Your task to perform on an android device: change the upload size in google photos Image 0: 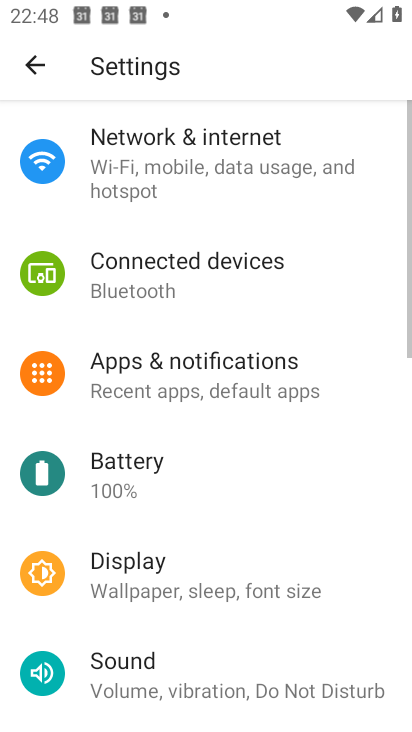
Step 0: press home button
Your task to perform on an android device: change the upload size in google photos Image 1: 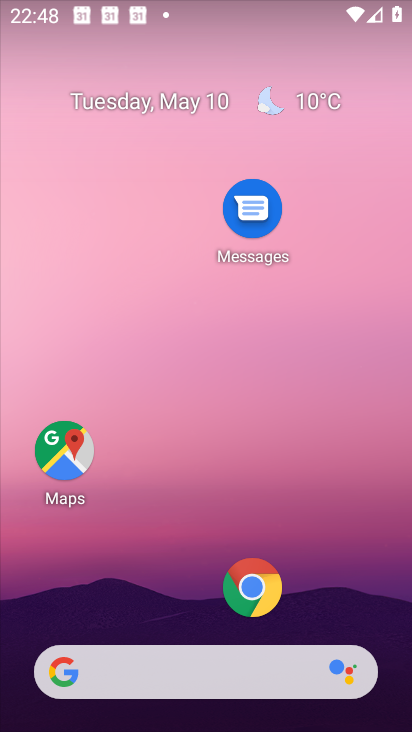
Step 1: drag from (183, 593) to (194, 27)
Your task to perform on an android device: change the upload size in google photos Image 2: 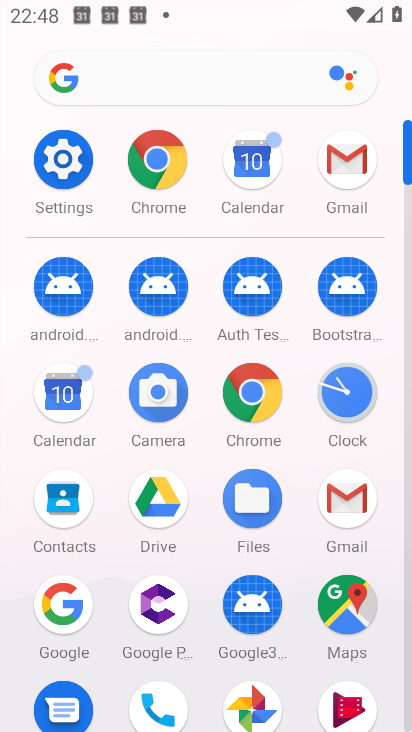
Step 2: click (229, 696)
Your task to perform on an android device: change the upload size in google photos Image 3: 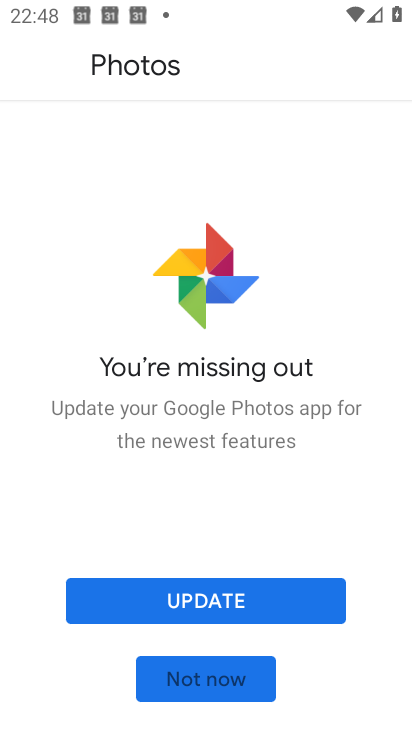
Step 3: click (202, 605)
Your task to perform on an android device: change the upload size in google photos Image 4: 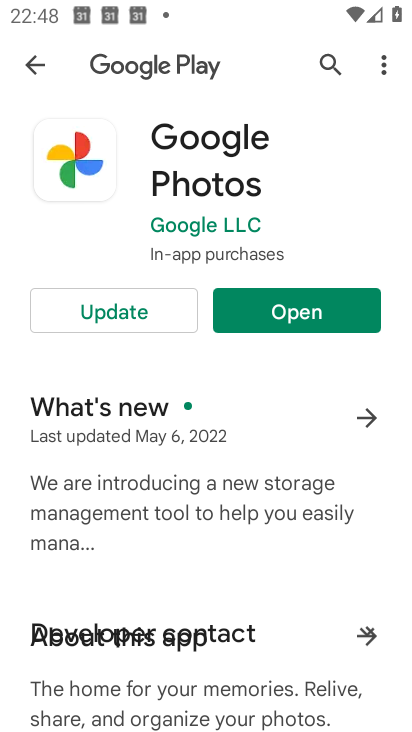
Step 4: click (160, 312)
Your task to perform on an android device: change the upload size in google photos Image 5: 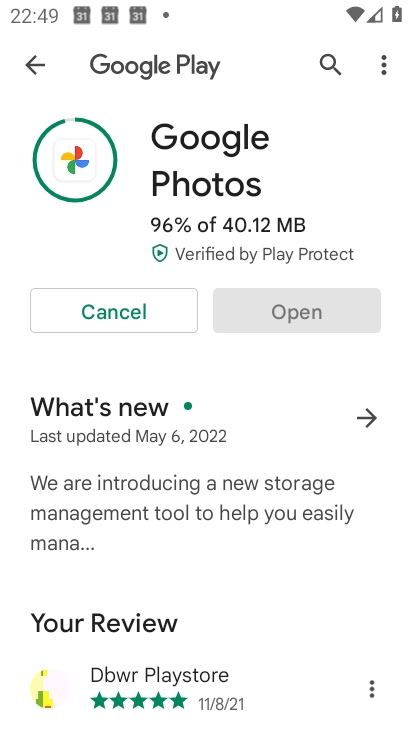
Step 5: click (277, 321)
Your task to perform on an android device: change the upload size in google photos Image 6: 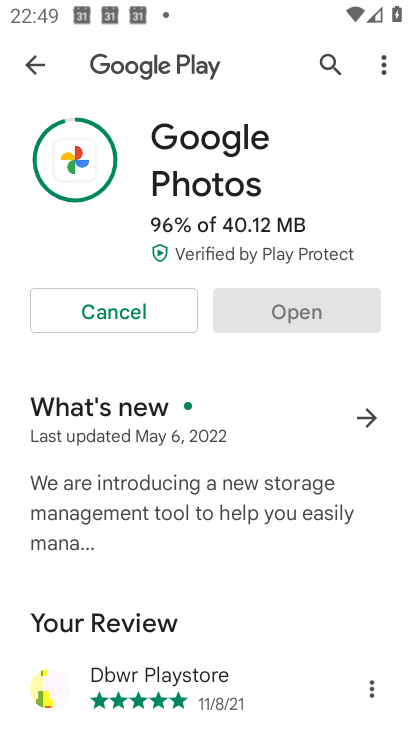
Step 6: drag from (193, 472) to (183, 274)
Your task to perform on an android device: change the upload size in google photos Image 7: 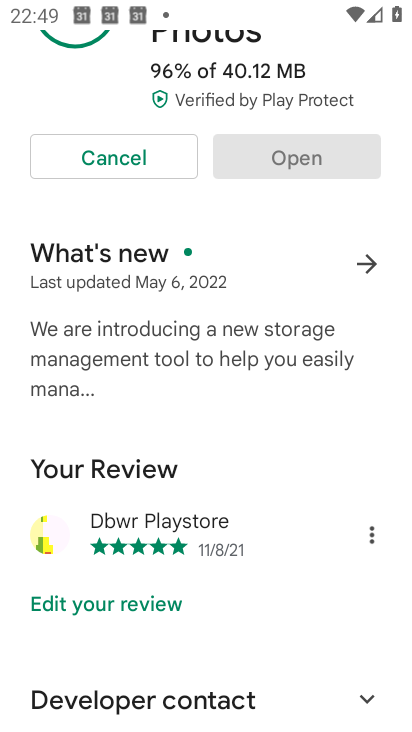
Step 7: drag from (104, 551) to (132, 342)
Your task to perform on an android device: change the upload size in google photos Image 8: 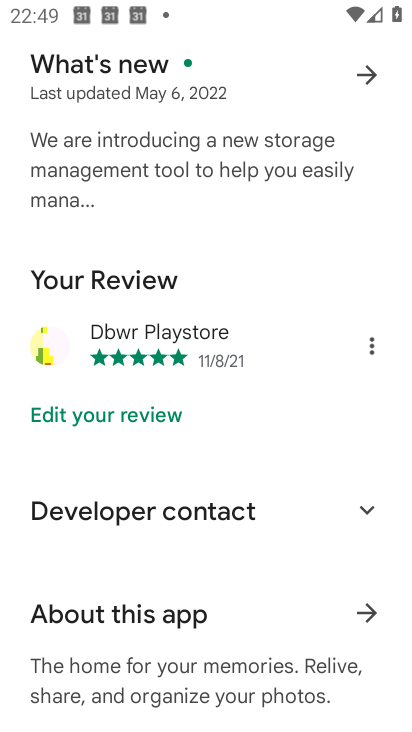
Step 8: drag from (209, 261) to (192, 672)
Your task to perform on an android device: change the upload size in google photos Image 9: 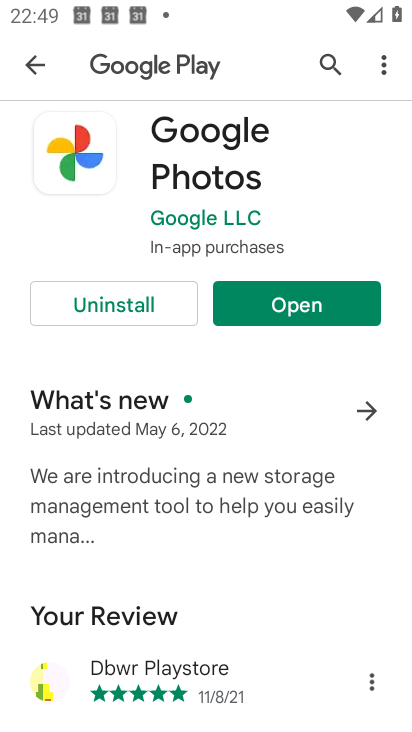
Step 9: click (282, 307)
Your task to perform on an android device: change the upload size in google photos Image 10: 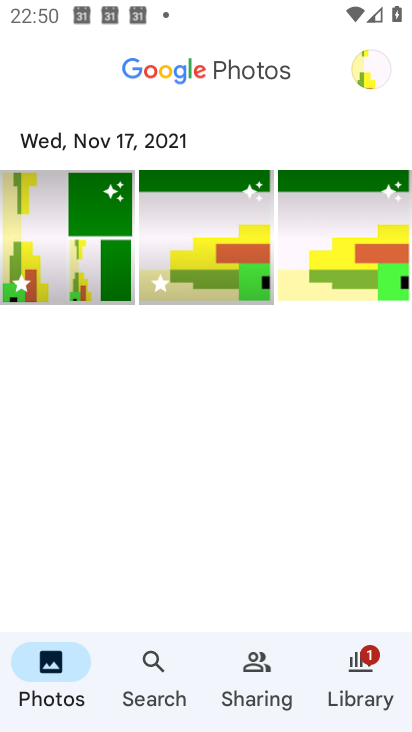
Step 10: click (363, 78)
Your task to perform on an android device: change the upload size in google photos Image 11: 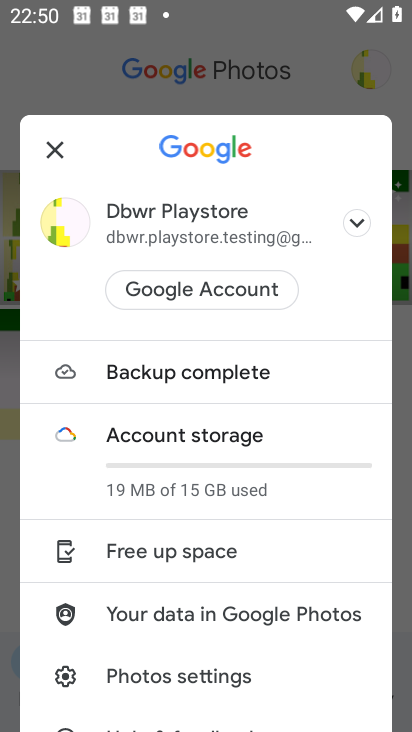
Step 11: drag from (168, 625) to (192, 469)
Your task to perform on an android device: change the upload size in google photos Image 12: 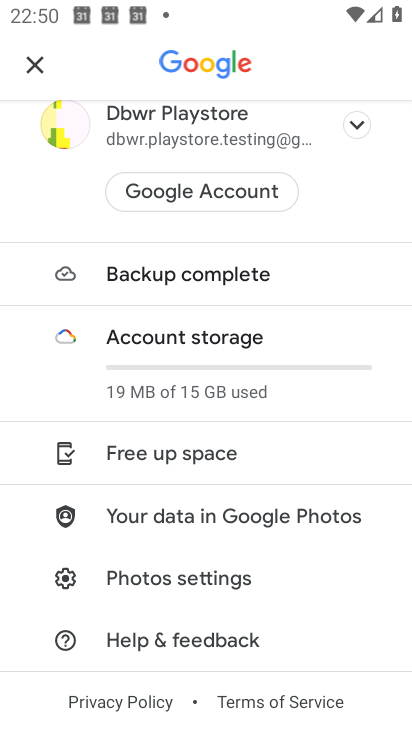
Step 12: click (162, 581)
Your task to perform on an android device: change the upload size in google photos Image 13: 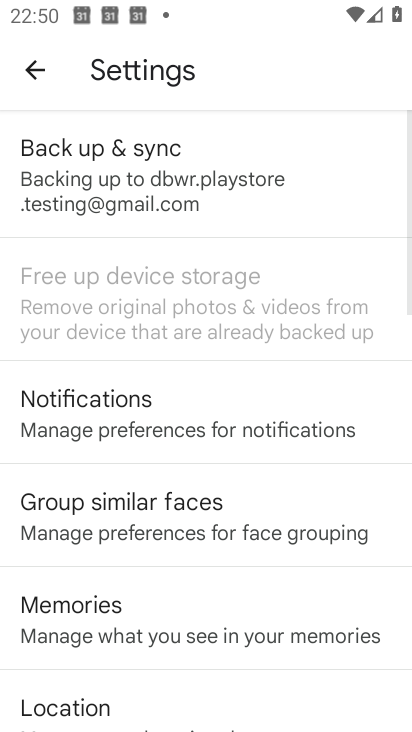
Step 13: click (145, 181)
Your task to perform on an android device: change the upload size in google photos Image 14: 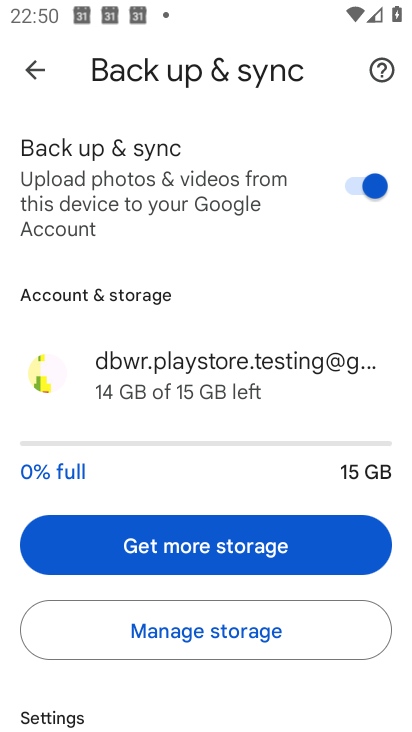
Step 14: drag from (175, 471) to (194, 231)
Your task to perform on an android device: change the upload size in google photos Image 15: 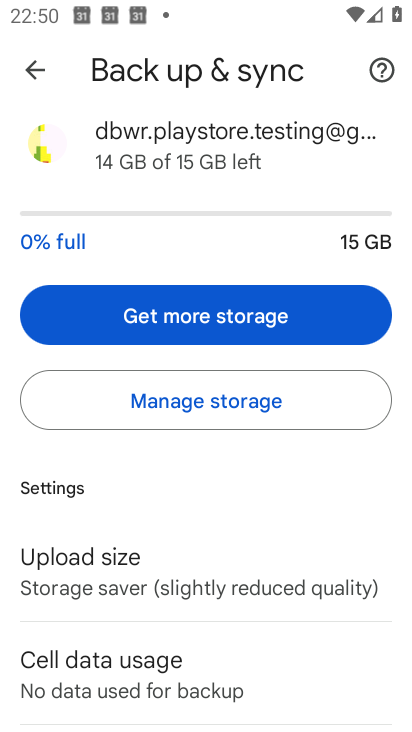
Step 15: click (96, 589)
Your task to perform on an android device: change the upload size in google photos Image 16: 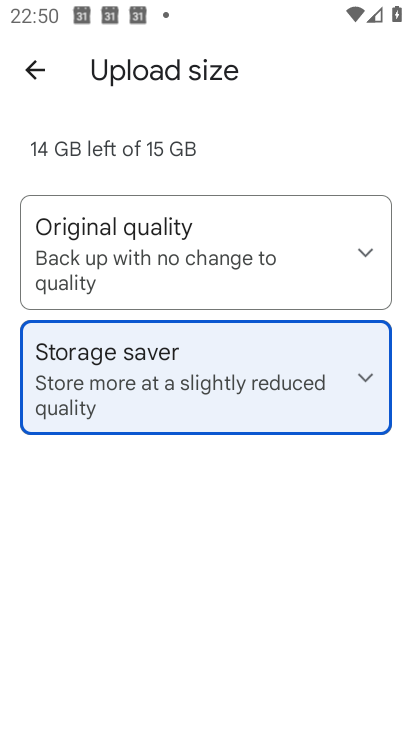
Step 16: click (128, 258)
Your task to perform on an android device: change the upload size in google photos Image 17: 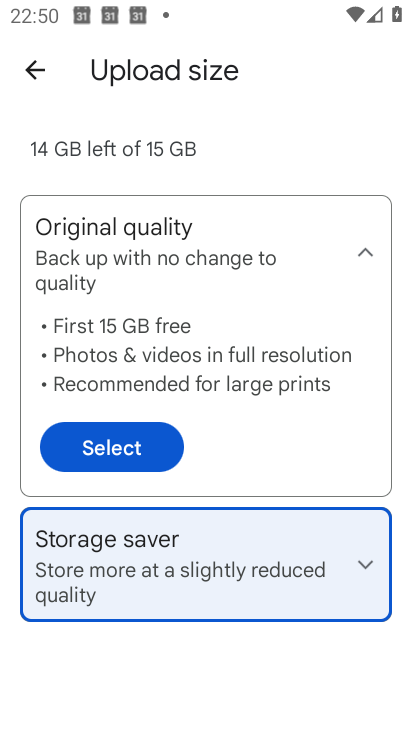
Step 17: click (127, 453)
Your task to perform on an android device: change the upload size in google photos Image 18: 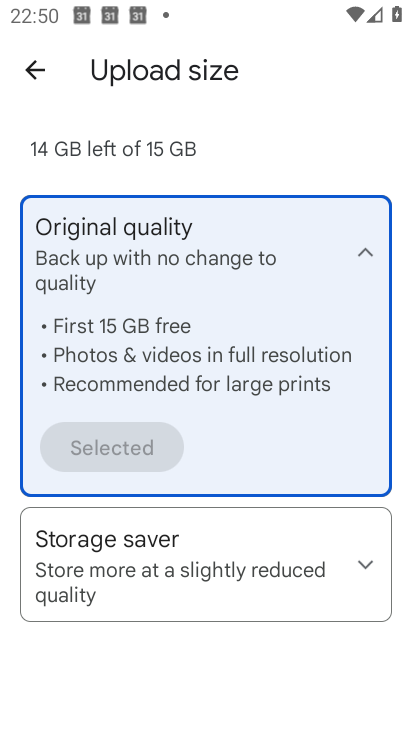
Step 18: task complete